Your task to perform on an android device: open app "Grab" (install if not already installed) Image 0: 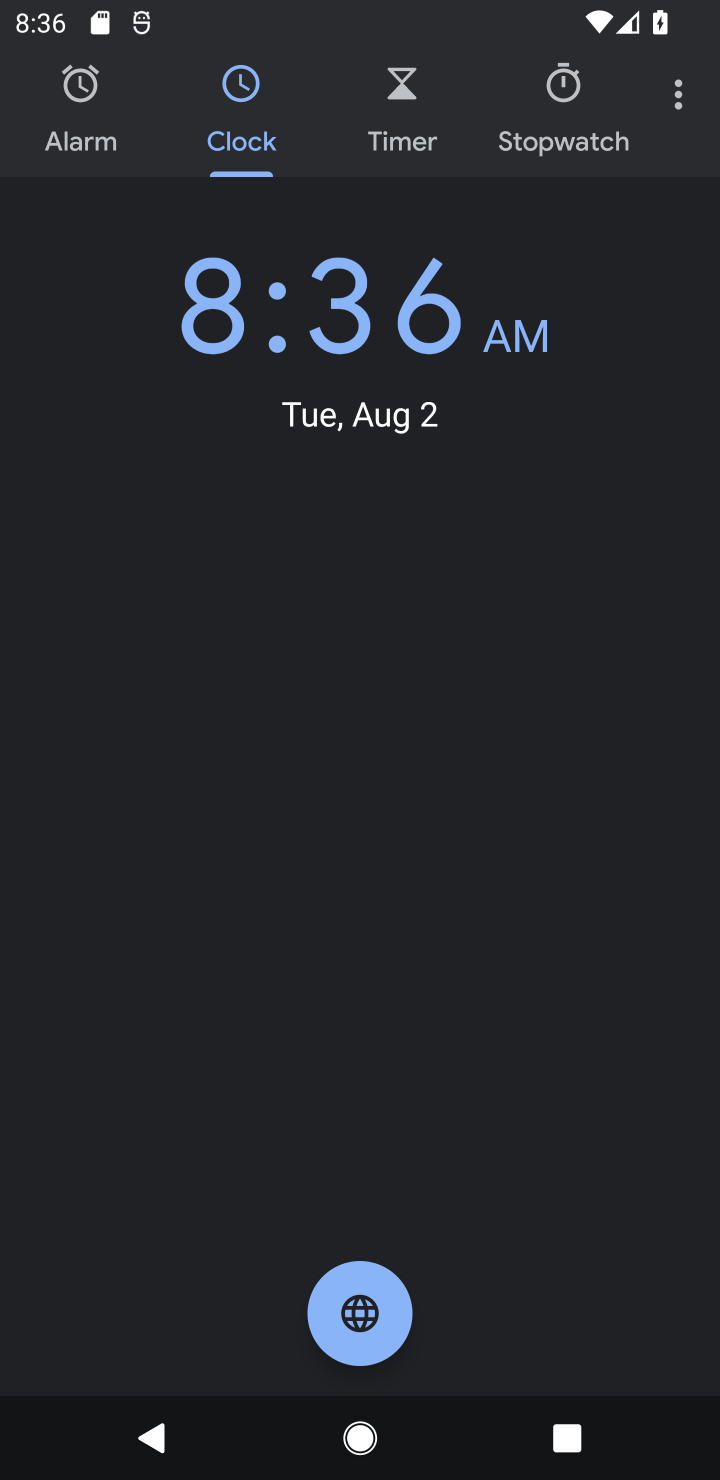
Step 0: press home button
Your task to perform on an android device: open app "Grab" (install if not already installed) Image 1: 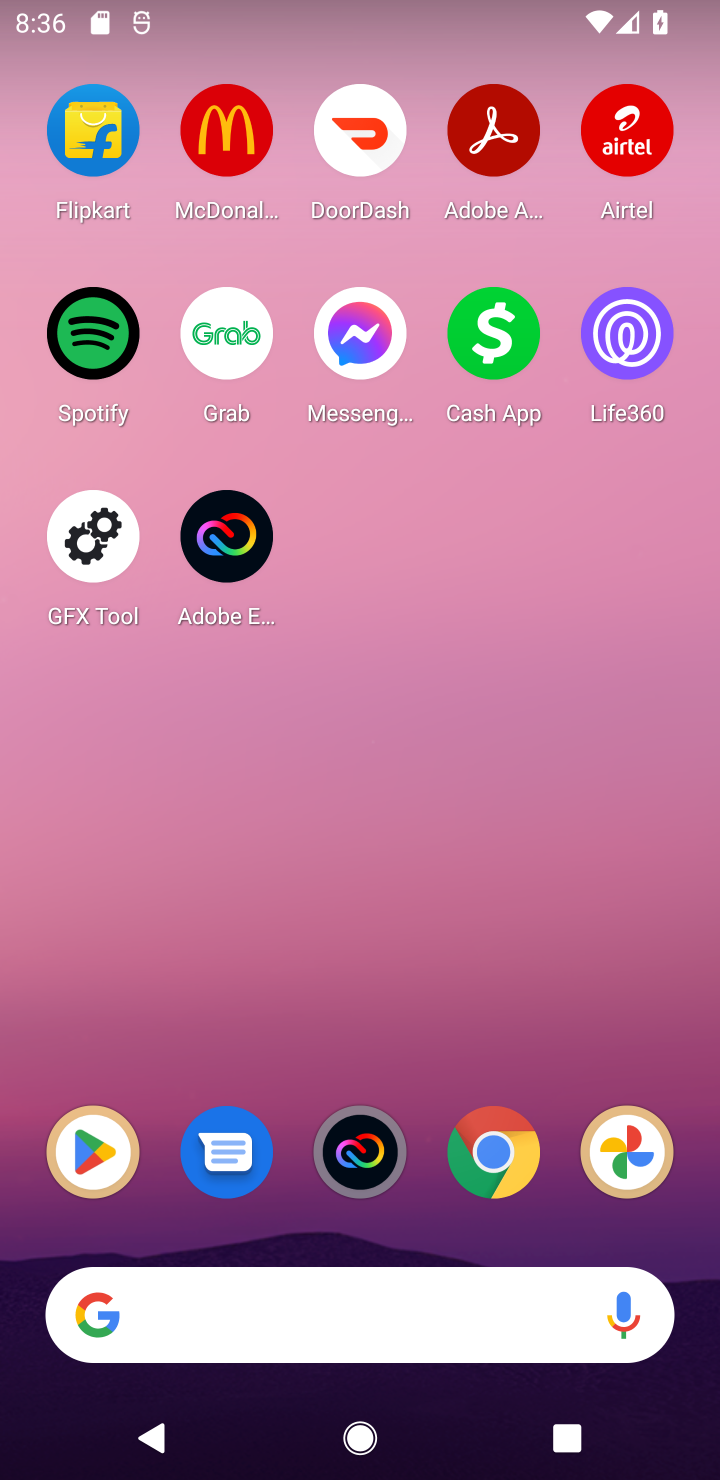
Step 1: click (88, 1169)
Your task to perform on an android device: open app "Grab" (install if not already installed) Image 2: 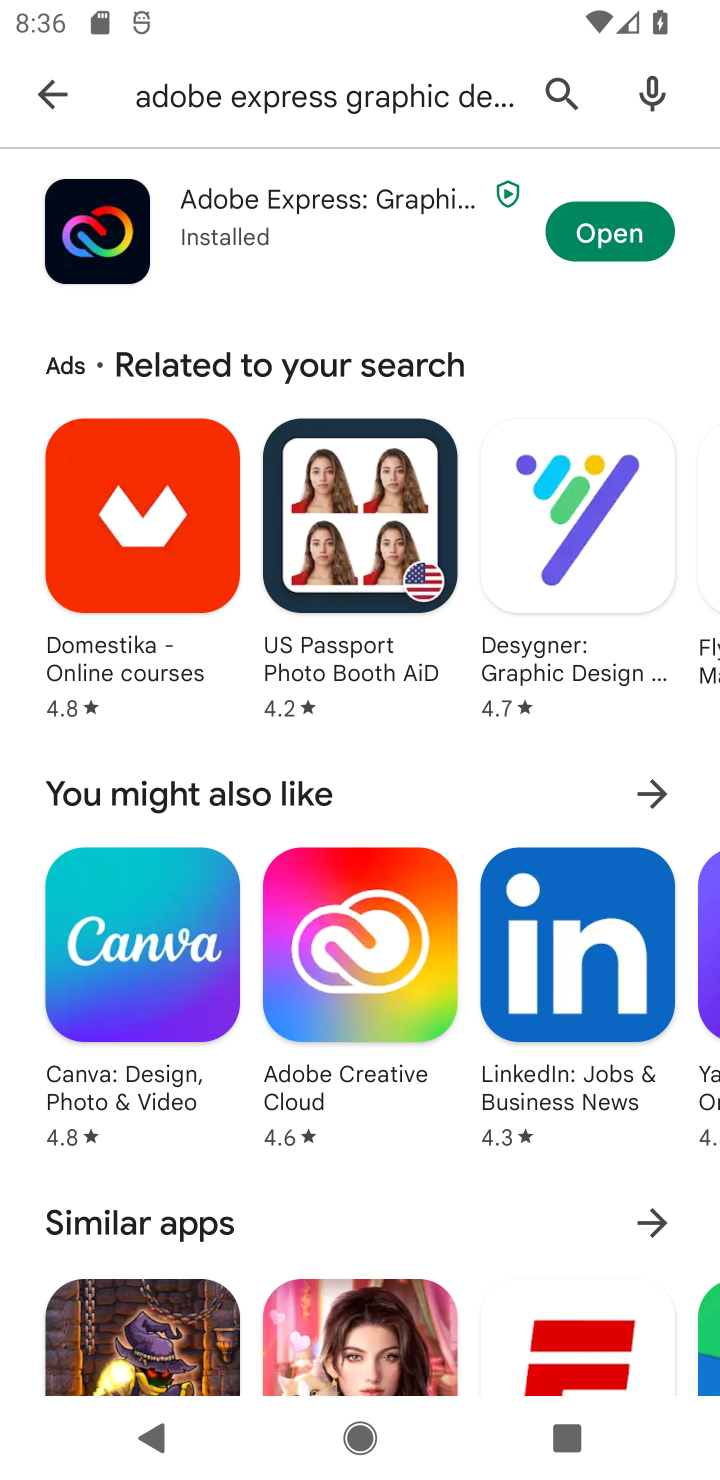
Step 2: click (33, 91)
Your task to perform on an android device: open app "Grab" (install if not already installed) Image 3: 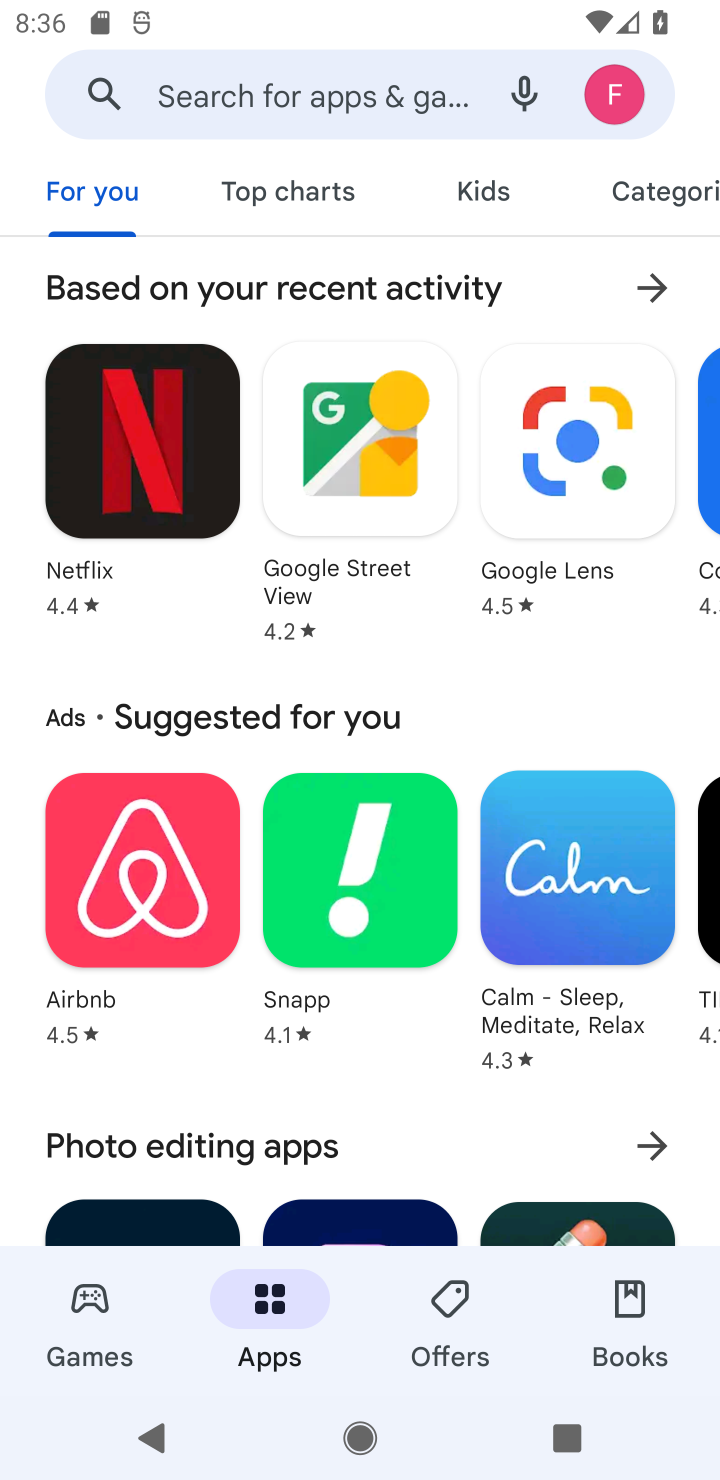
Step 3: click (375, 64)
Your task to perform on an android device: open app "Grab" (install if not already installed) Image 4: 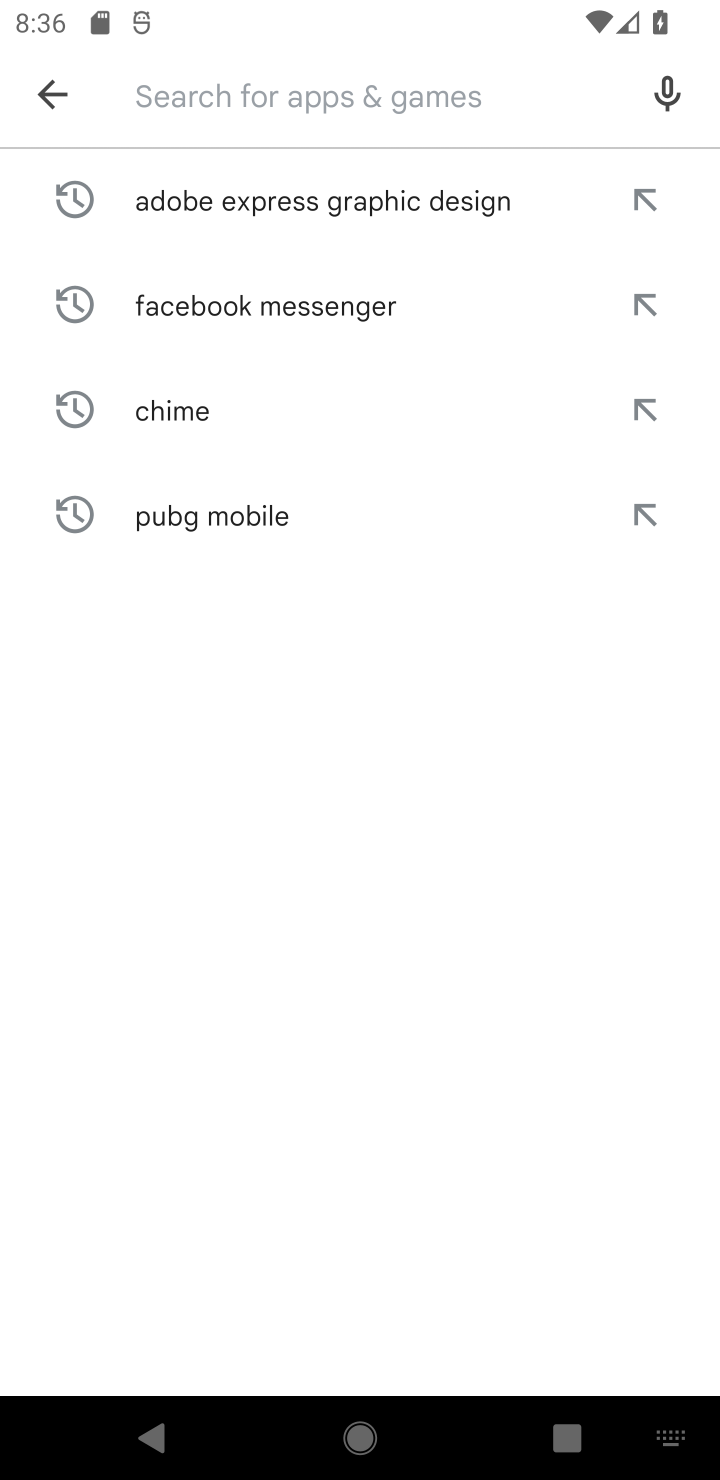
Step 4: type "Grab"
Your task to perform on an android device: open app "Grab" (install if not already installed) Image 5: 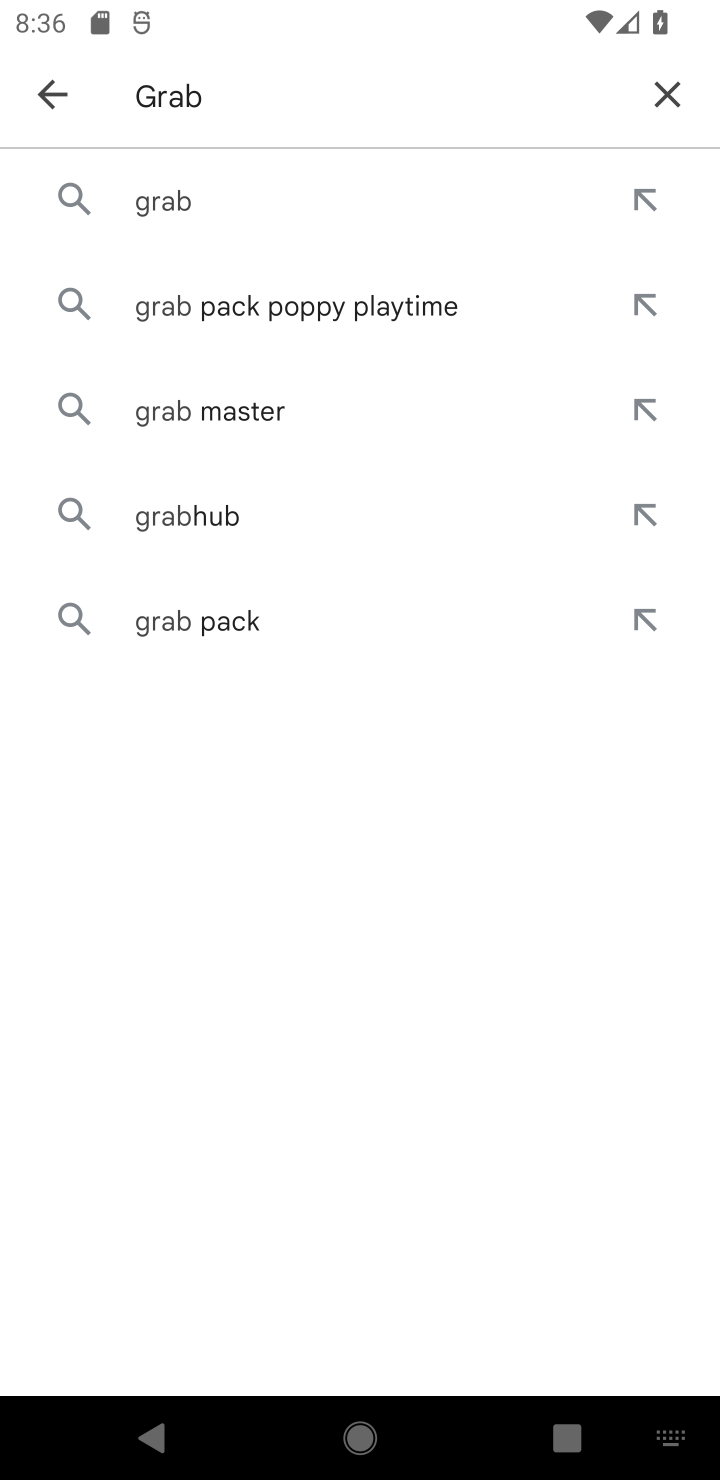
Step 5: click (133, 206)
Your task to perform on an android device: open app "Grab" (install if not already installed) Image 6: 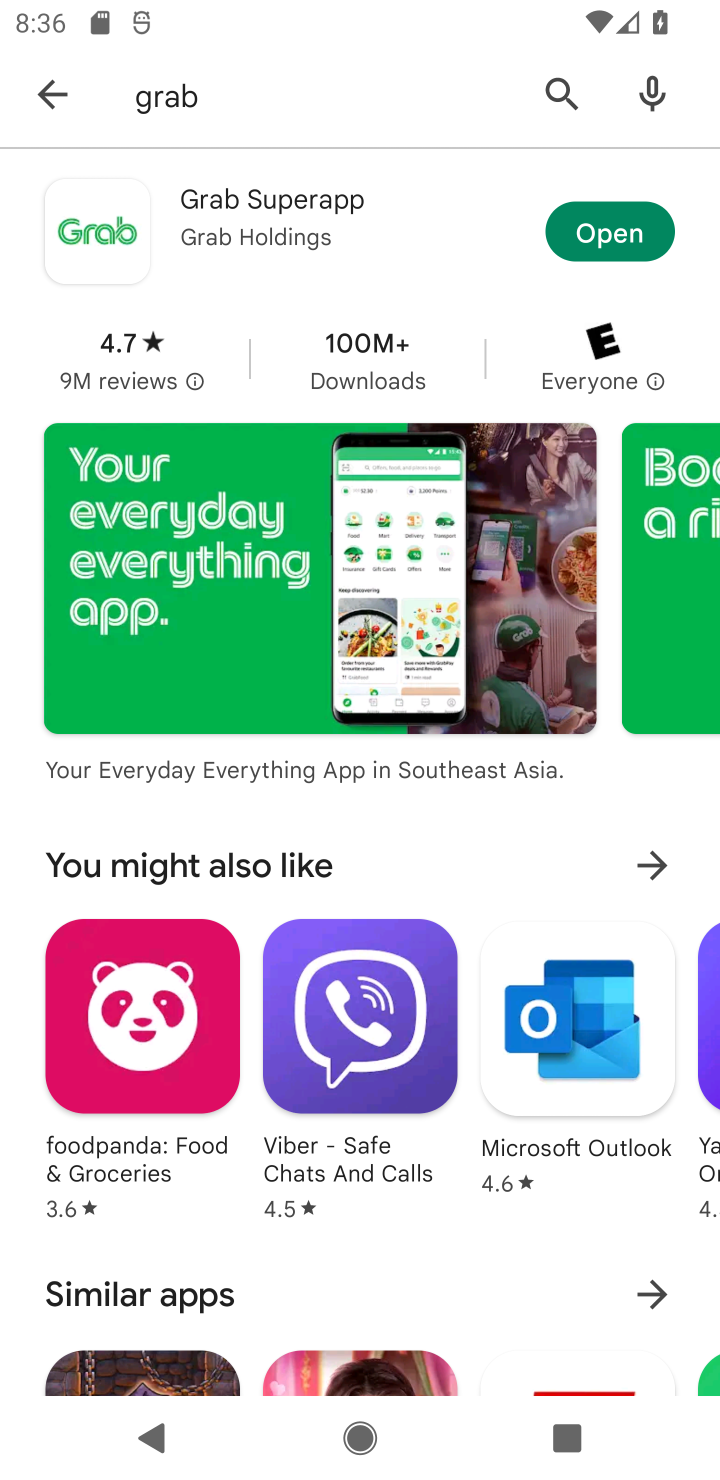
Step 6: click (643, 220)
Your task to perform on an android device: open app "Grab" (install if not already installed) Image 7: 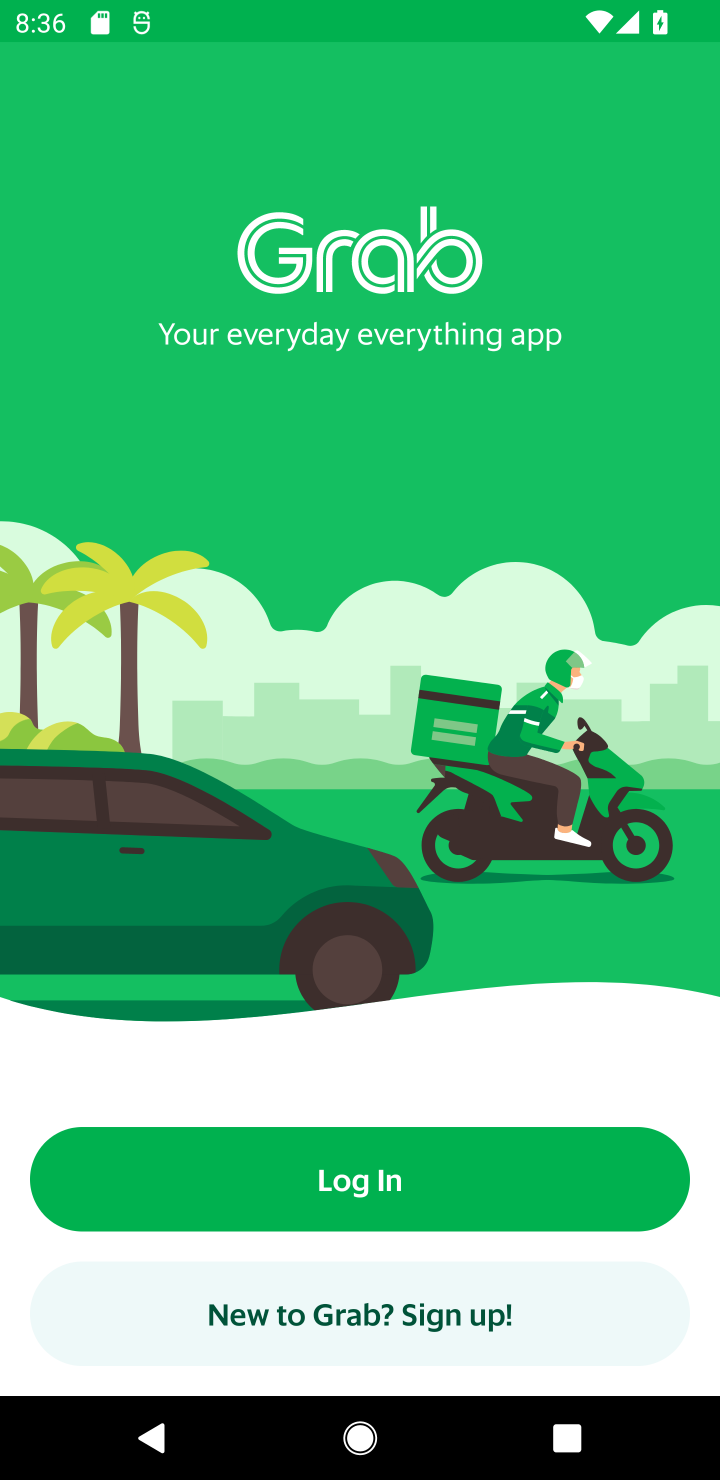
Step 7: task complete